Your task to perform on an android device: change text size in settings app Image 0: 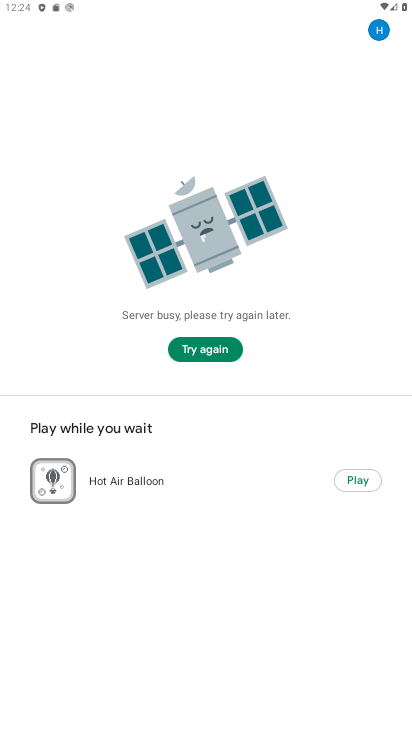
Step 0: press home button
Your task to perform on an android device: change text size in settings app Image 1: 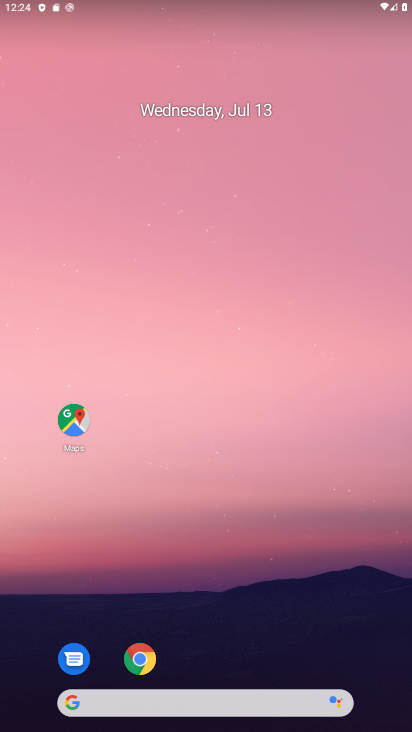
Step 1: drag from (232, 694) to (251, 211)
Your task to perform on an android device: change text size in settings app Image 2: 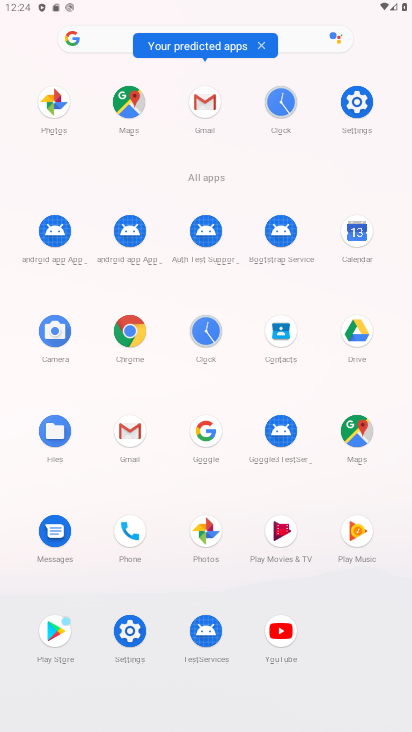
Step 2: click (130, 628)
Your task to perform on an android device: change text size in settings app Image 3: 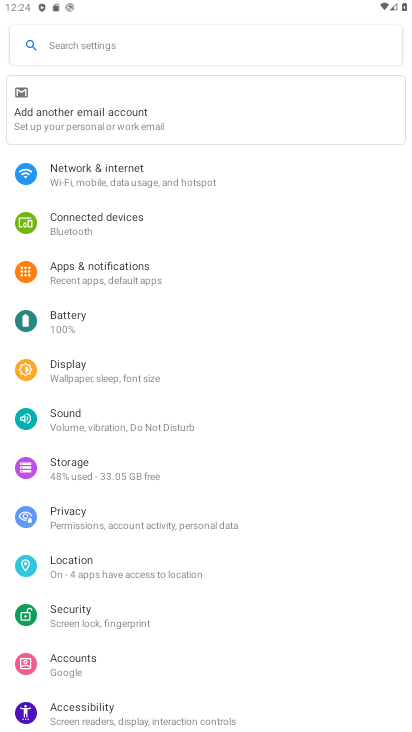
Step 3: click (119, 379)
Your task to perform on an android device: change text size in settings app Image 4: 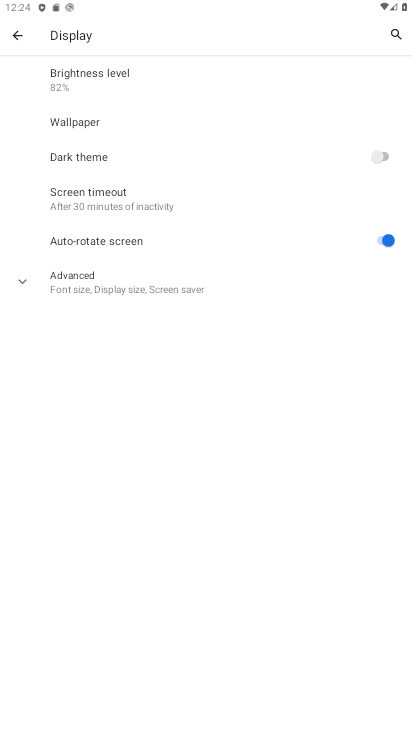
Step 4: click (115, 291)
Your task to perform on an android device: change text size in settings app Image 5: 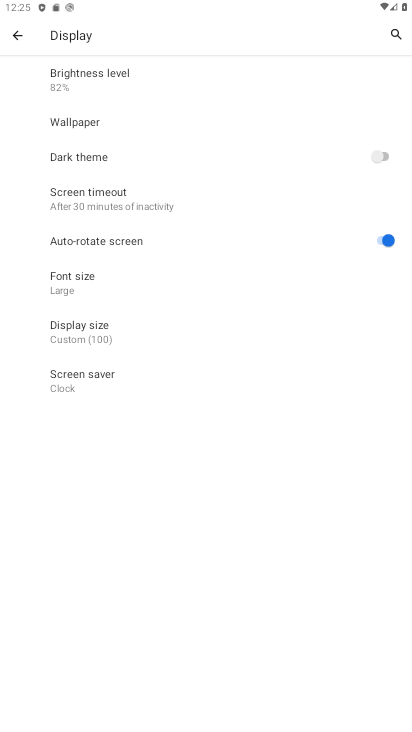
Step 5: click (72, 277)
Your task to perform on an android device: change text size in settings app Image 6: 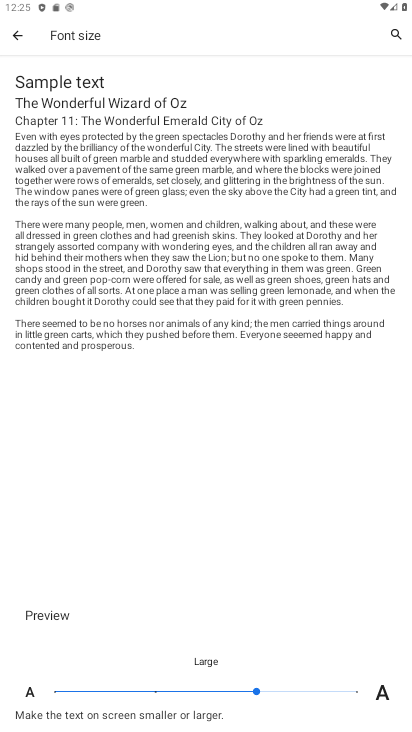
Step 6: click (358, 689)
Your task to perform on an android device: change text size in settings app Image 7: 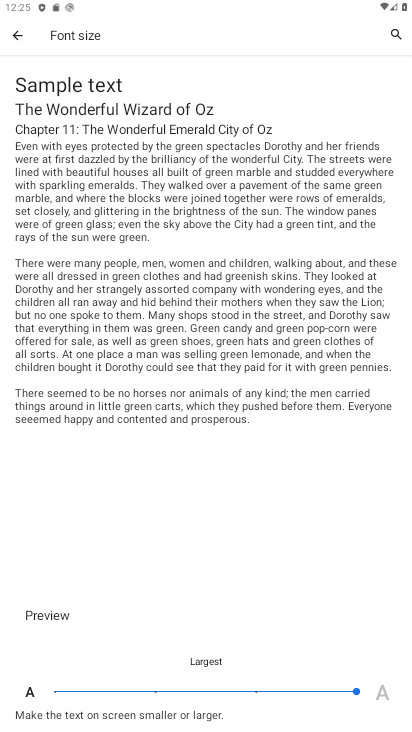
Step 7: task complete